Your task to perform on an android device: turn vacation reply on in the gmail app Image 0: 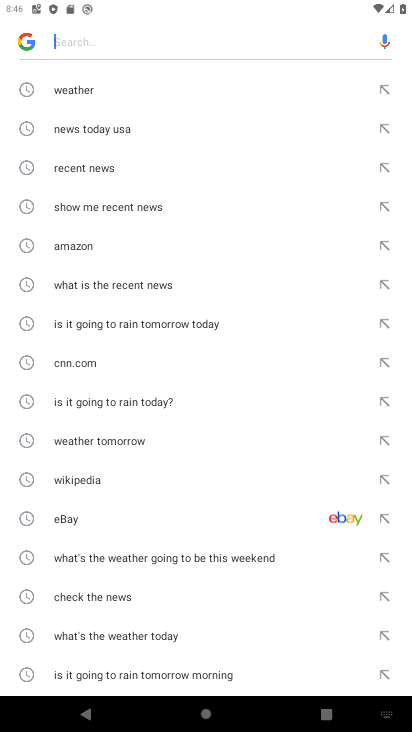
Step 0: press home button
Your task to perform on an android device: turn vacation reply on in the gmail app Image 1: 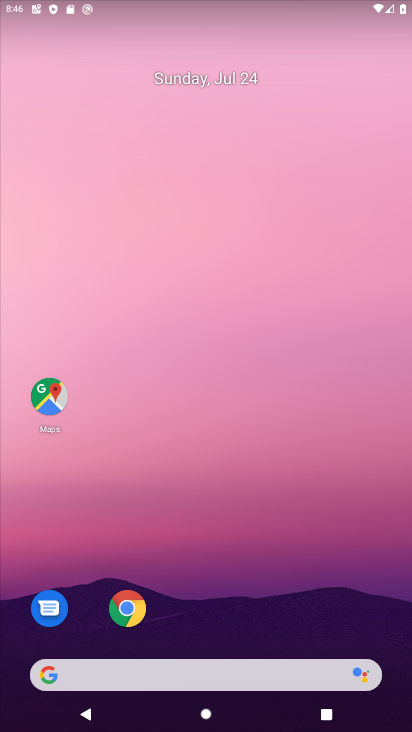
Step 1: drag from (211, 620) to (201, 26)
Your task to perform on an android device: turn vacation reply on in the gmail app Image 2: 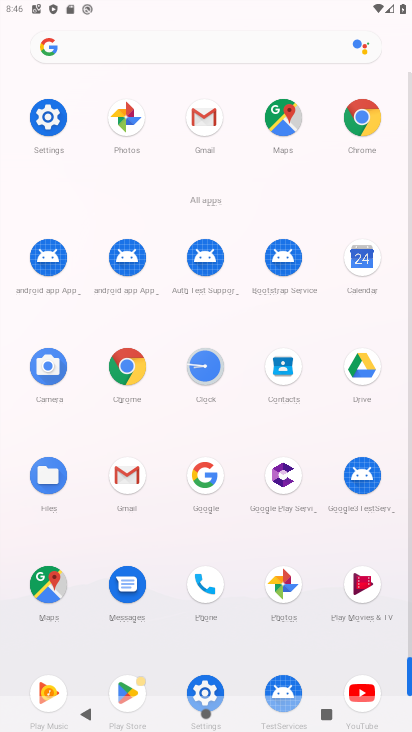
Step 2: click (129, 484)
Your task to perform on an android device: turn vacation reply on in the gmail app Image 3: 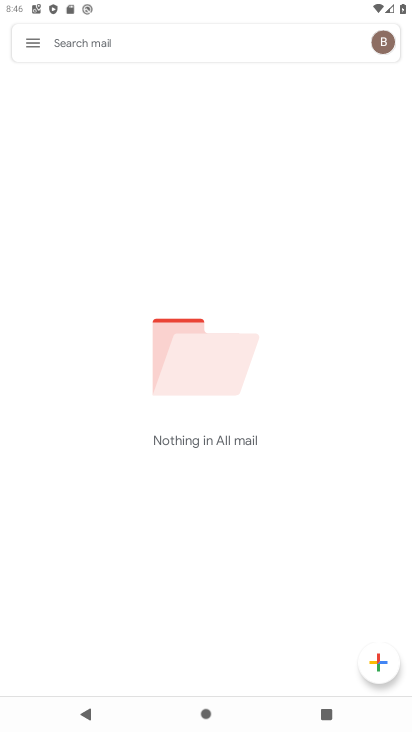
Step 3: click (33, 37)
Your task to perform on an android device: turn vacation reply on in the gmail app Image 4: 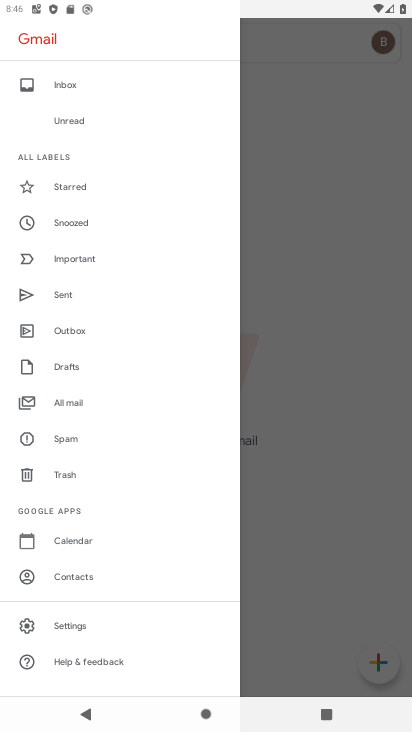
Step 4: click (61, 626)
Your task to perform on an android device: turn vacation reply on in the gmail app Image 5: 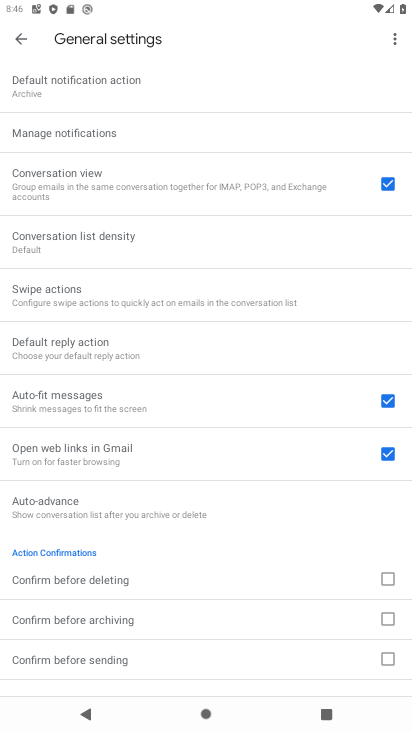
Step 5: click (22, 38)
Your task to perform on an android device: turn vacation reply on in the gmail app Image 6: 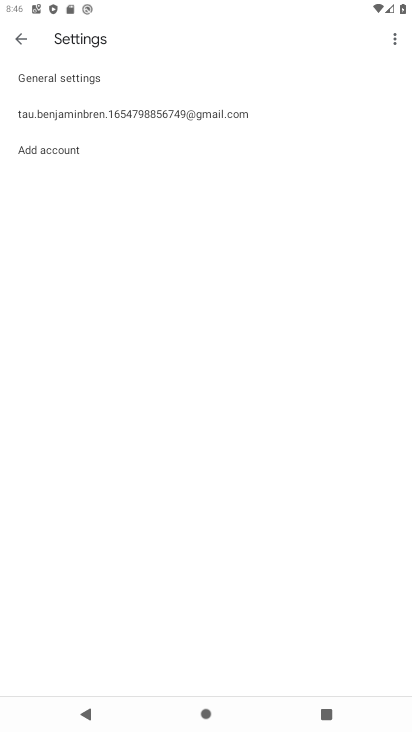
Step 6: click (130, 116)
Your task to perform on an android device: turn vacation reply on in the gmail app Image 7: 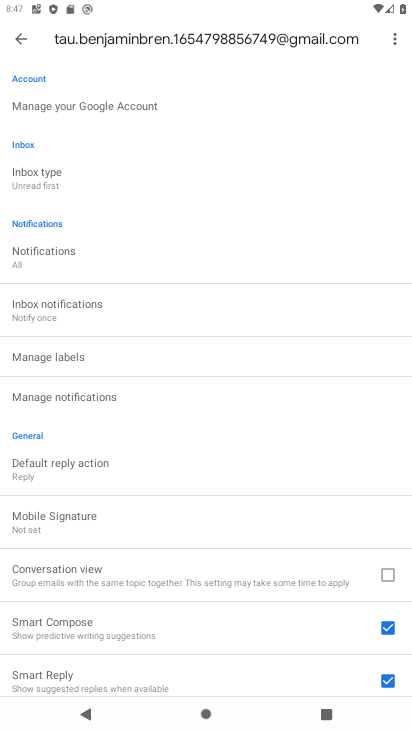
Step 7: drag from (120, 606) to (179, 217)
Your task to perform on an android device: turn vacation reply on in the gmail app Image 8: 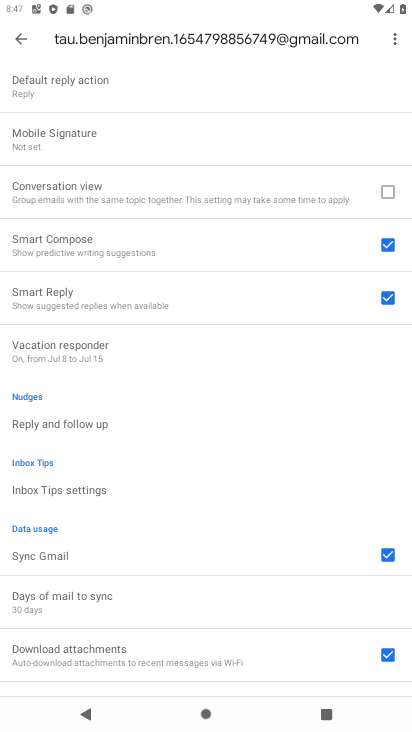
Step 8: click (90, 345)
Your task to perform on an android device: turn vacation reply on in the gmail app Image 9: 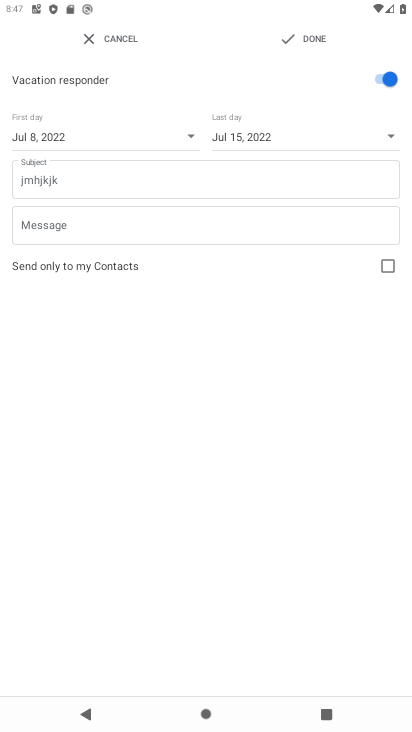
Step 9: task complete